Your task to perform on an android device: set the stopwatch Image 0: 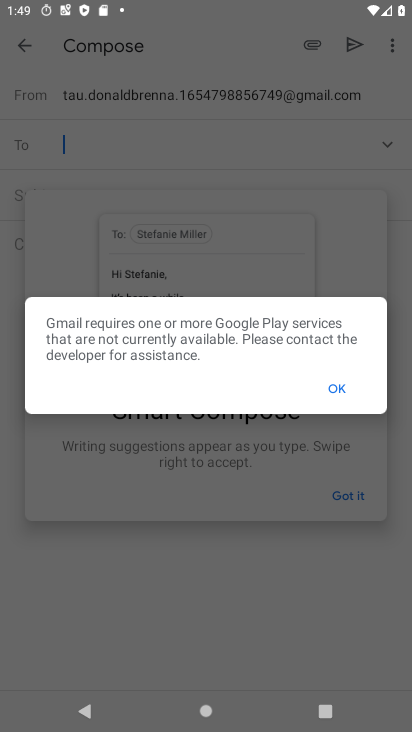
Step 0: press home button
Your task to perform on an android device: set the stopwatch Image 1: 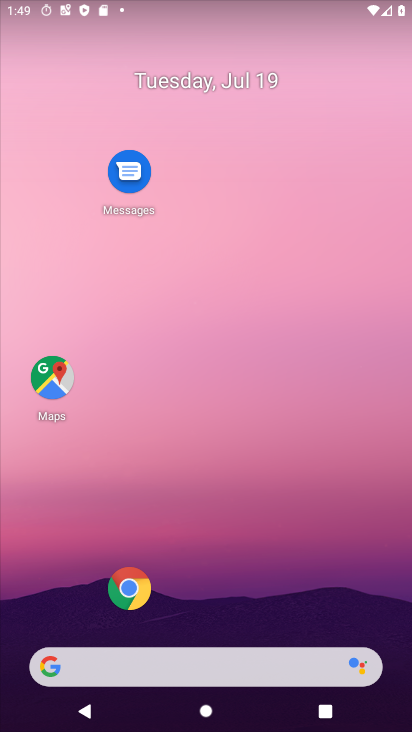
Step 1: drag from (26, 648) to (142, 30)
Your task to perform on an android device: set the stopwatch Image 2: 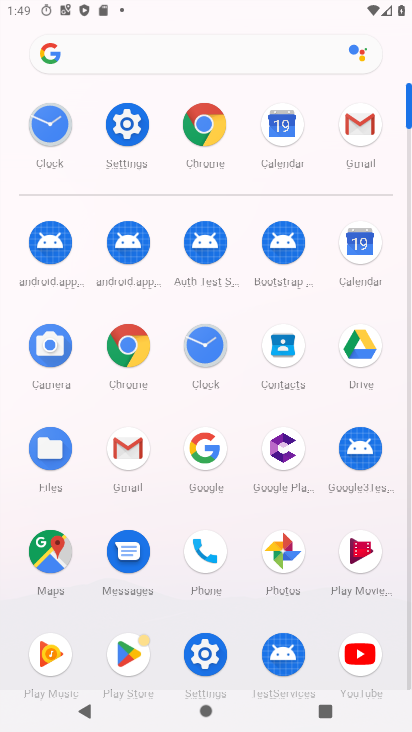
Step 2: click (187, 362)
Your task to perform on an android device: set the stopwatch Image 3: 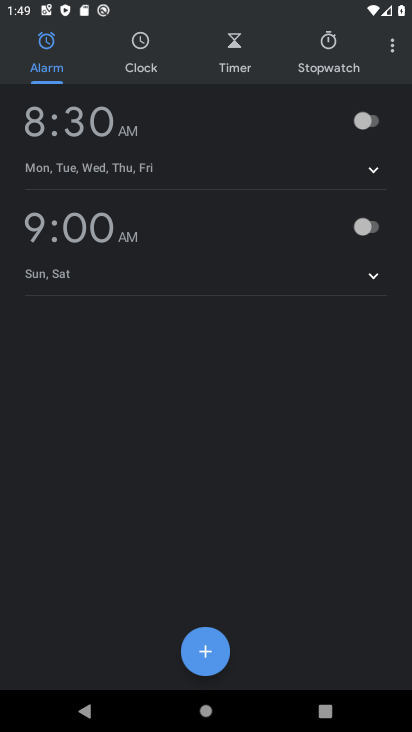
Step 3: click (334, 56)
Your task to perform on an android device: set the stopwatch Image 4: 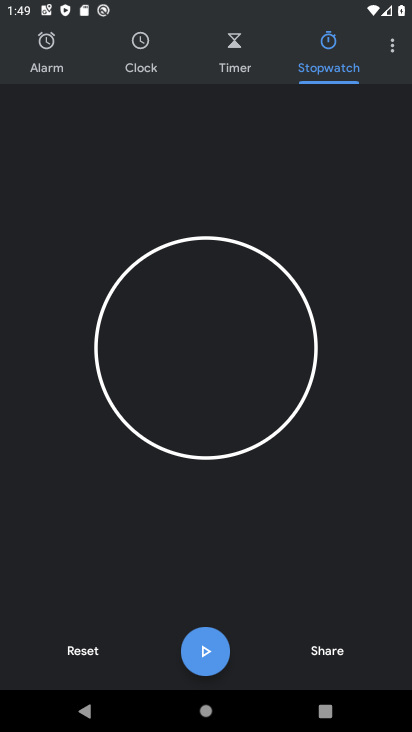
Step 4: click (173, 350)
Your task to perform on an android device: set the stopwatch Image 5: 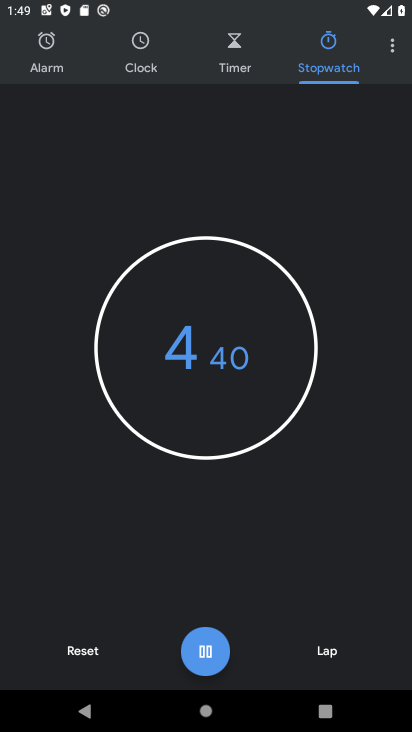
Step 5: click (207, 656)
Your task to perform on an android device: set the stopwatch Image 6: 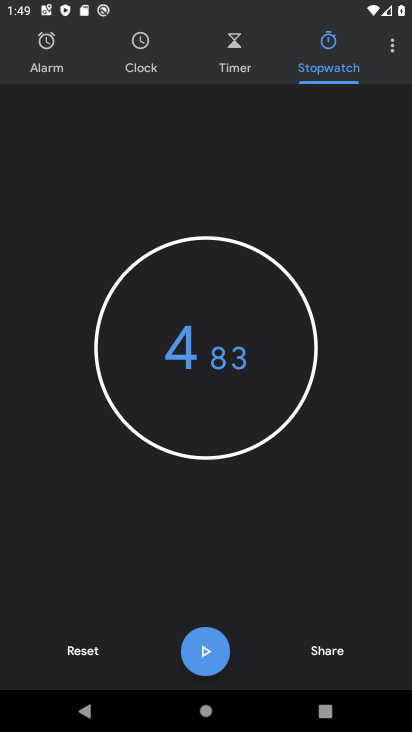
Step 6: task complete